Your task to perform on an android device: clear history in the chrome app Image 0: 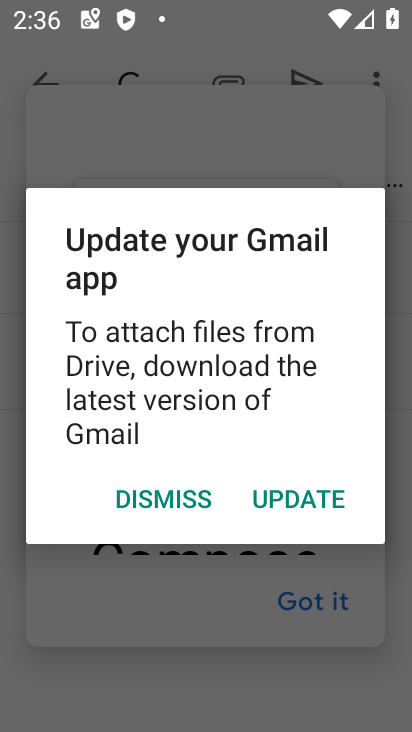
Step 0: press home button
Your task to perform on an android device: clear history in the chrome app Image 1: 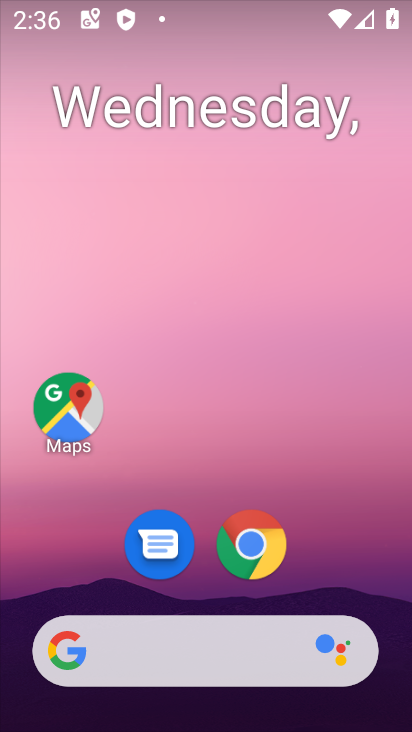
Step 1: drag from (356, 552) to (348, 123)
Your task to perform on an android device: clear history in the chrome app Image 2: 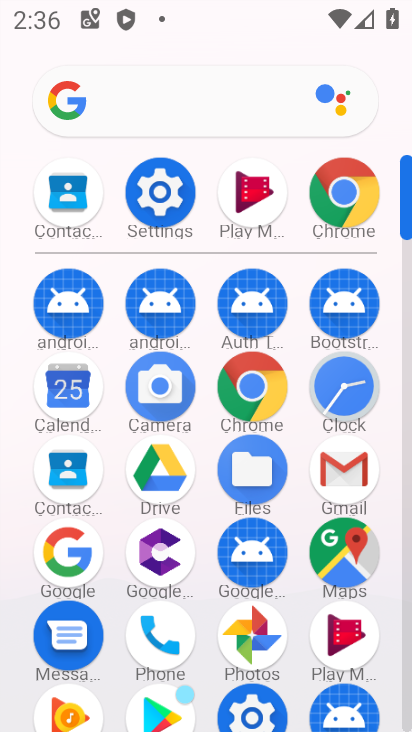
Step 2: click (253, 381)
Your task to perform on an android device: clear history in the chrome app Image 3: 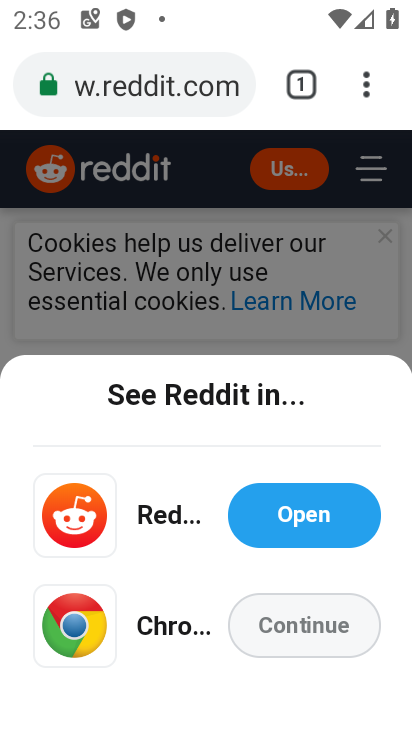
Step 3: drag from (368, 76) to (94, 469)
Your task to perform on an android device: clear history in the chrome app Image 4: 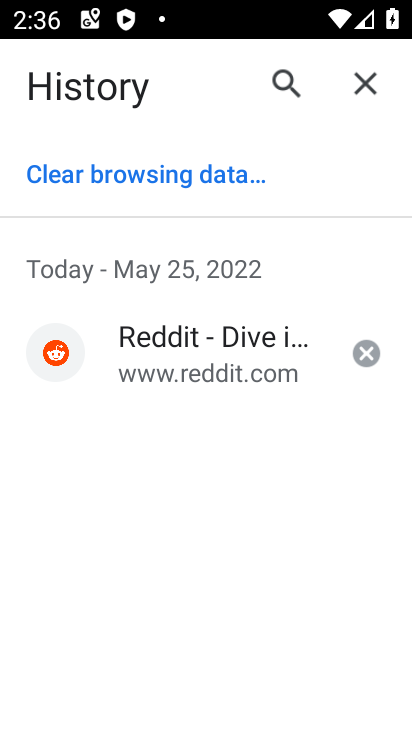
Step 4: click (203, 168)
Your task to perform on an android device: clear history in the chrome app Image 5: 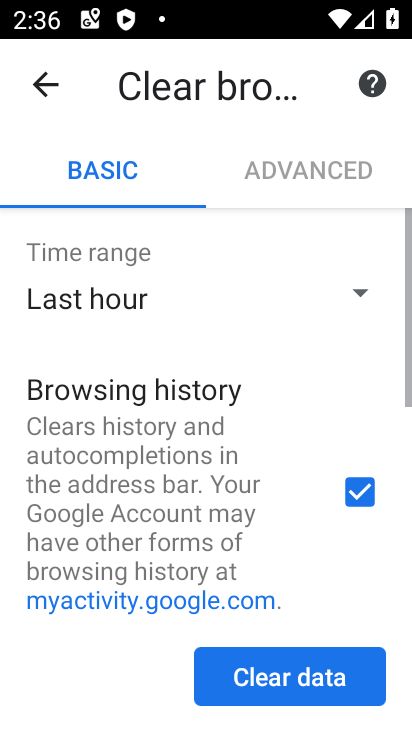
Step 5: click (299, 674)
Your task to perform on an android device: clear history in the chrome app Image 6: 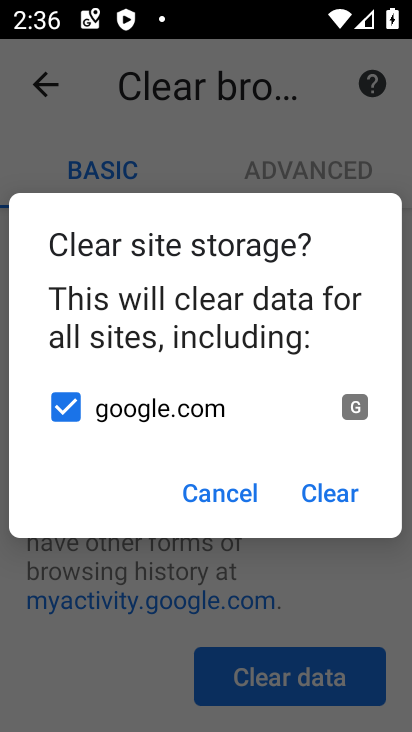
Step 6: click (329, 494)
Your task to perform on an android device: clear history in the chrome app Image 7: 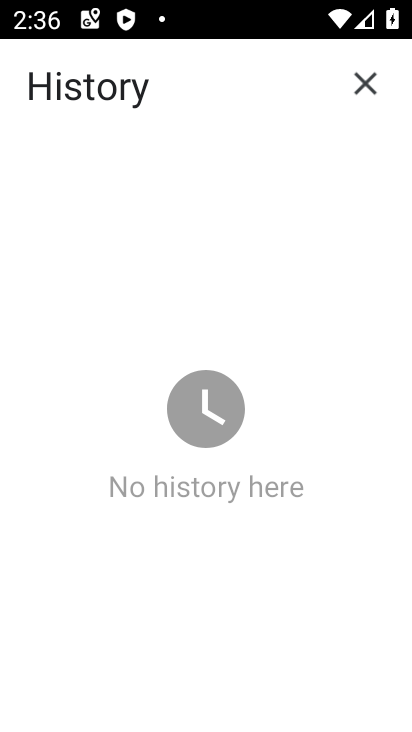
Step 7: task complete